Your task to perform on an android device: Do I have any events today? Image 0: 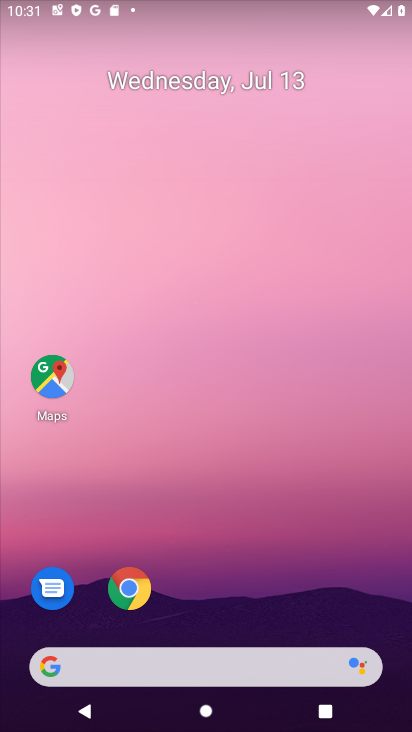
Step 0: drag from (191, 613) to (171, 132)
Your task to perform on an android device: Do I have any events today? Image 1: 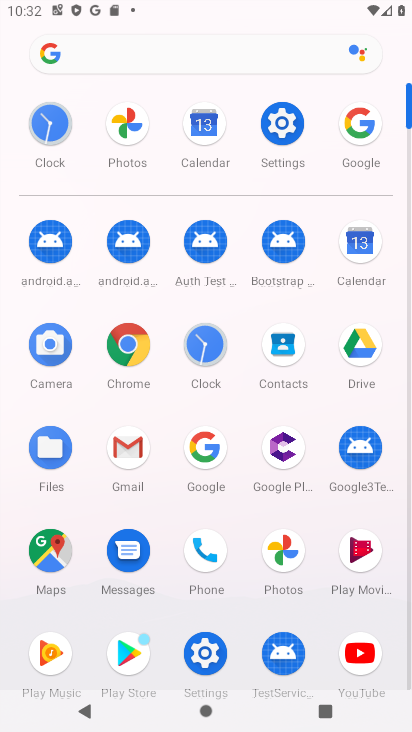
Step 1: click (361, 239)
Your task to perform on an android device: Do I have any events today? Image 2: 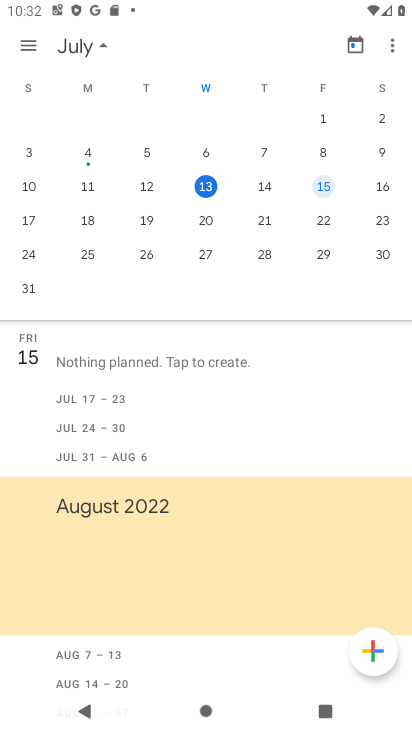
Step 2: click (209, 185)
Your task to perform on an android device: Do I have any events today? Image 3: 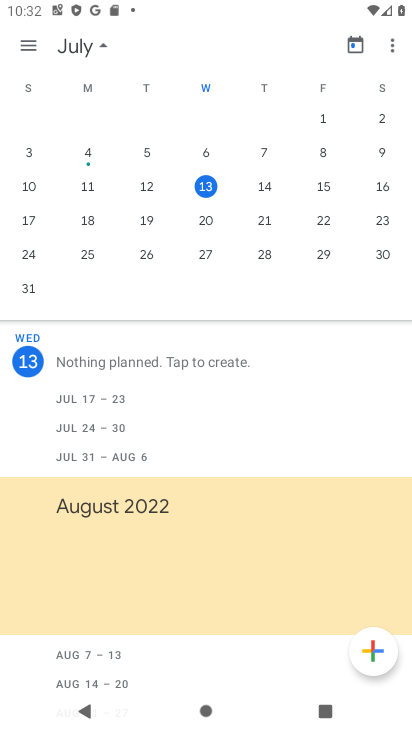
Step 3: task complete